Your task to perform on an android device: find which apps use the phone's location Image 0: 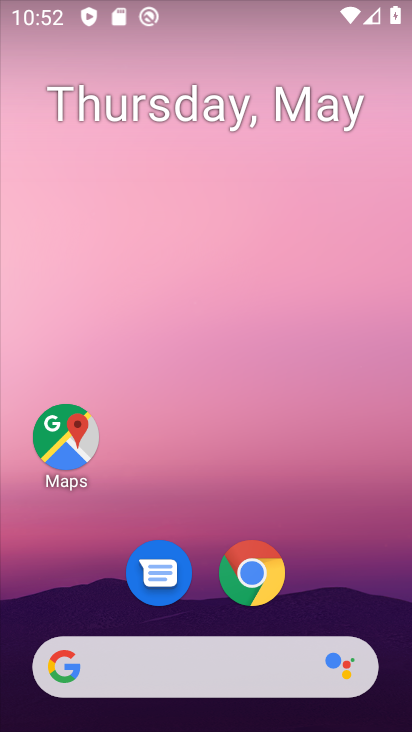
Step 0: drag from (100, 618) to (186, 104)
Your task to perform on an android device: find which apps use the phone's location Image 1: 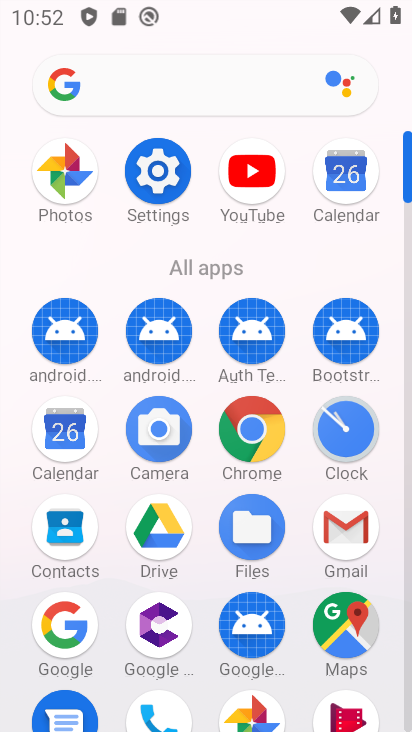
Step 1: drag from (171, 606) to (242, 285)
Your task to perform on an android device: find which apps use the phone's location Image 2: 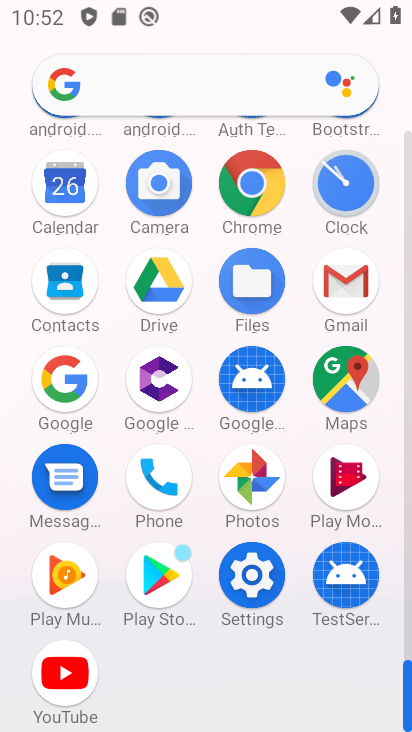
Step 2: click (254, 581)
Your task to perform on an android device: find which apps use the phone's location Image 3: 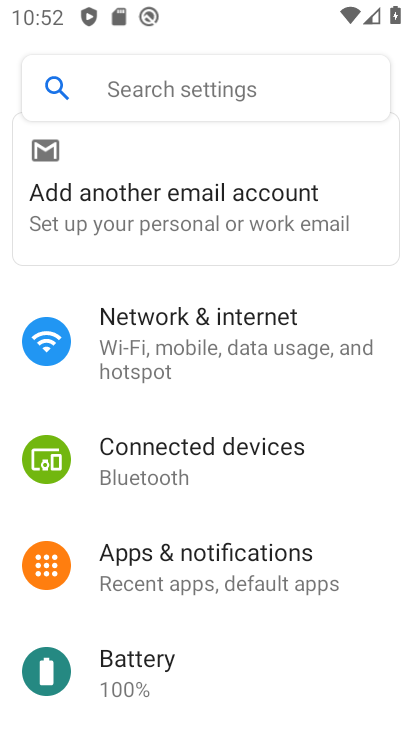
Step 3: drag from (169, 627) to (317, 110)
Your task to perform on an android device: find which apps use the phone's location Image 4: 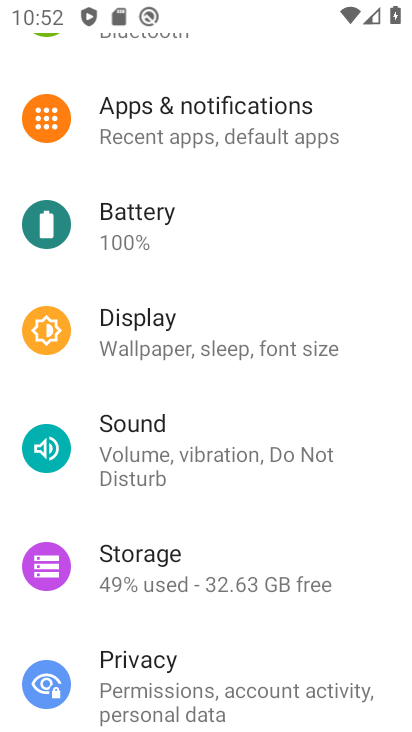
Step 4: drag from (171, 666) to (286, 247)
Your task to perform on an android device: find which apps use the phone's location Image 5: 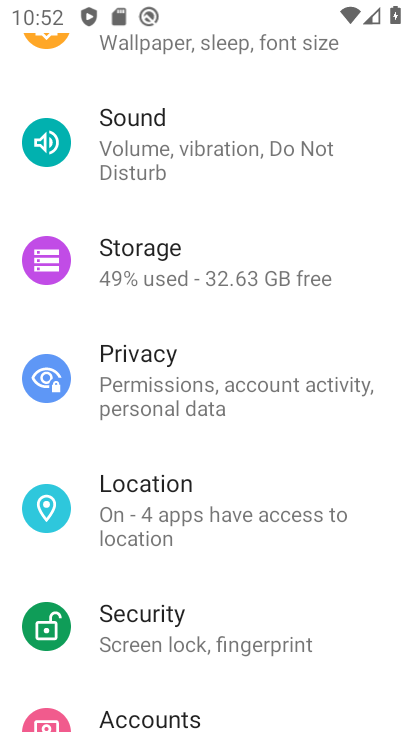
Step 5: click (190, 536)
Your task to perform on an android device: find which apps use the phone's location Image 6: 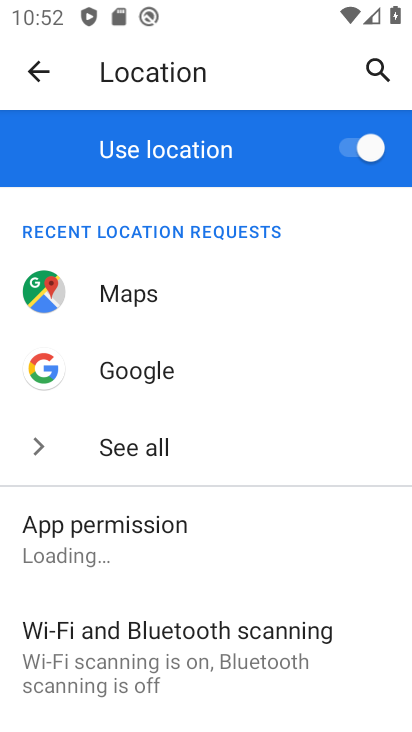
Step 6: click (168, 533)
Your task to perform on an android device: find which apps use the phone's location Image 7: 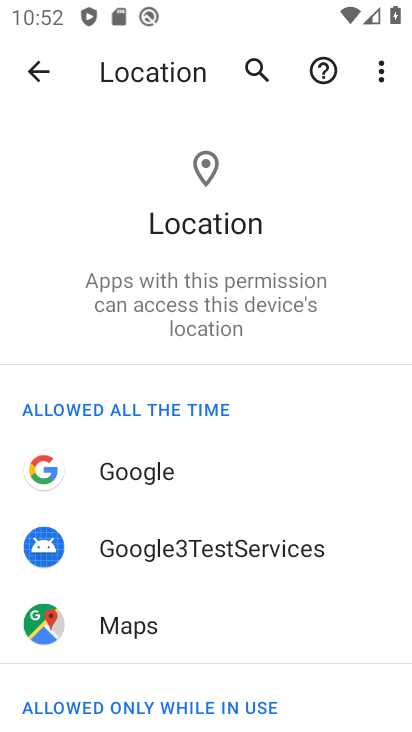
Step 7: task complete